Your task to perform on an android device: Open Chrome and go to the settings page Image 0: 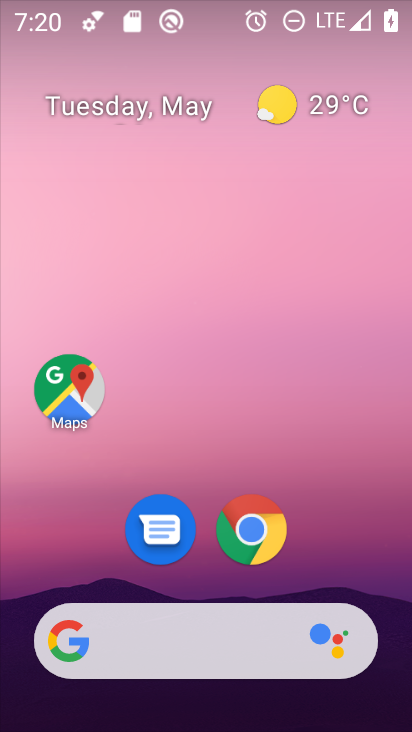
Step 0: drag from (390, 614) to (298, 93)
Your task to perform on an android device: Open Chrome and go to the settings page Image 1: 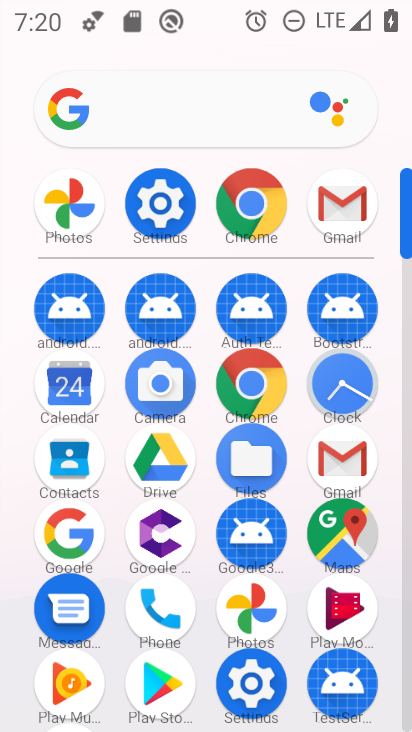
Step 1: click (272, 390)
Your task to perform on an android device: Open Chrome and go to the settings page Image 2: 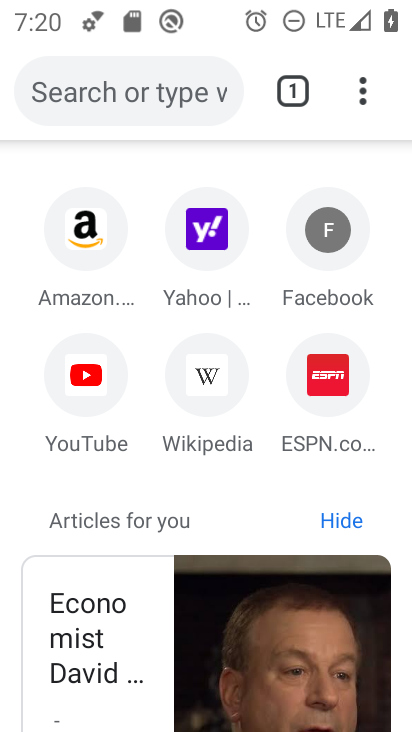
Step 2: click (358, 78)
Your task to perform on an android device: Open Chrome and go to the settings page Image 3: 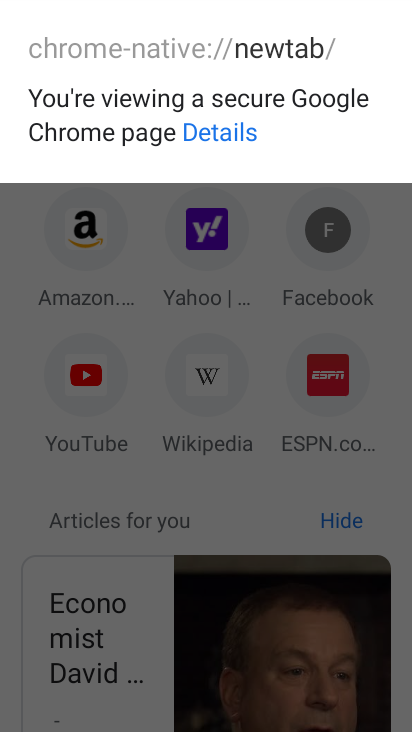
Step 3: press back button
Your task to perform on an android device: Open Chrome and go to the settings page Image 4: 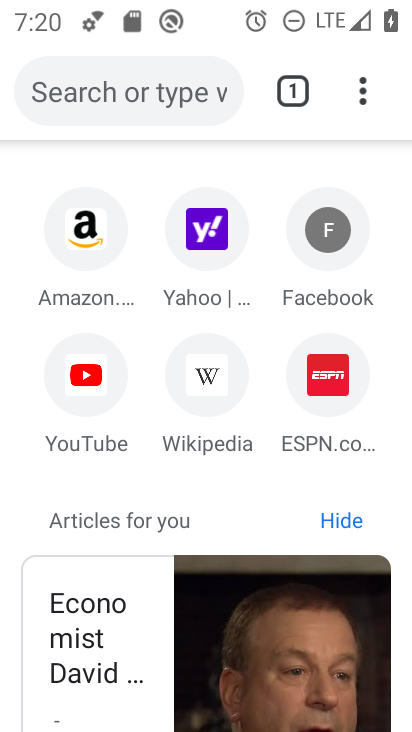
Step 4: click (359, 92)
Your task to perform on an android device: Open Chrome and go to the settings page Image 5: 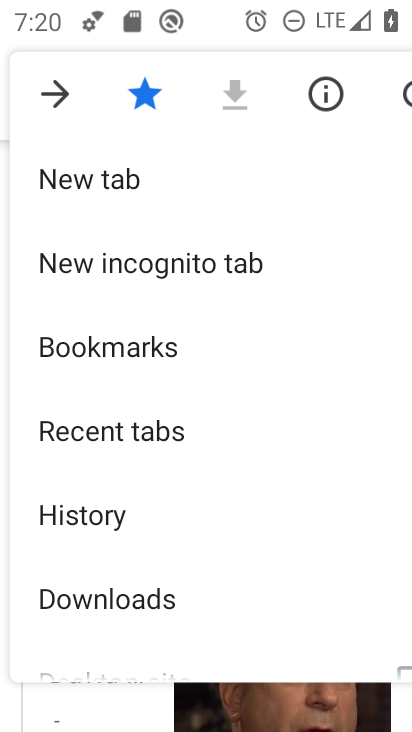
Step 5: drag from (93, 636) to (189, 180)
Your task to perform on an android device: Open Chrome and go to the settings page Image 6: 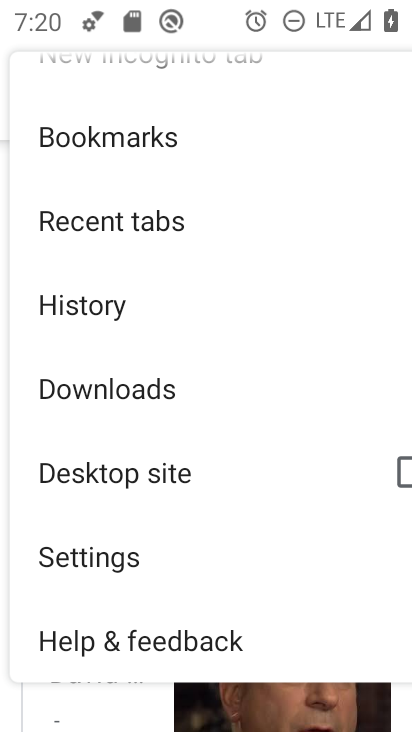
Step 6: click (136, 551)
Your task to perform on an android device: Open Chrome and go to the settings page Image 7: 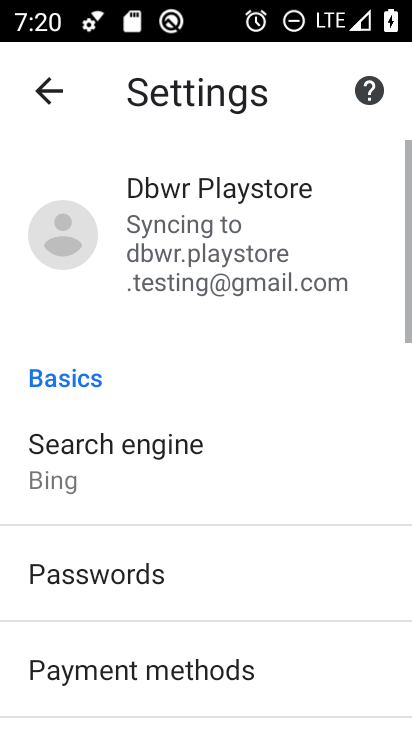
Step 7: task complete